Your task to perform on an android device: remove spam from my inbox in the gmail app Image 0: 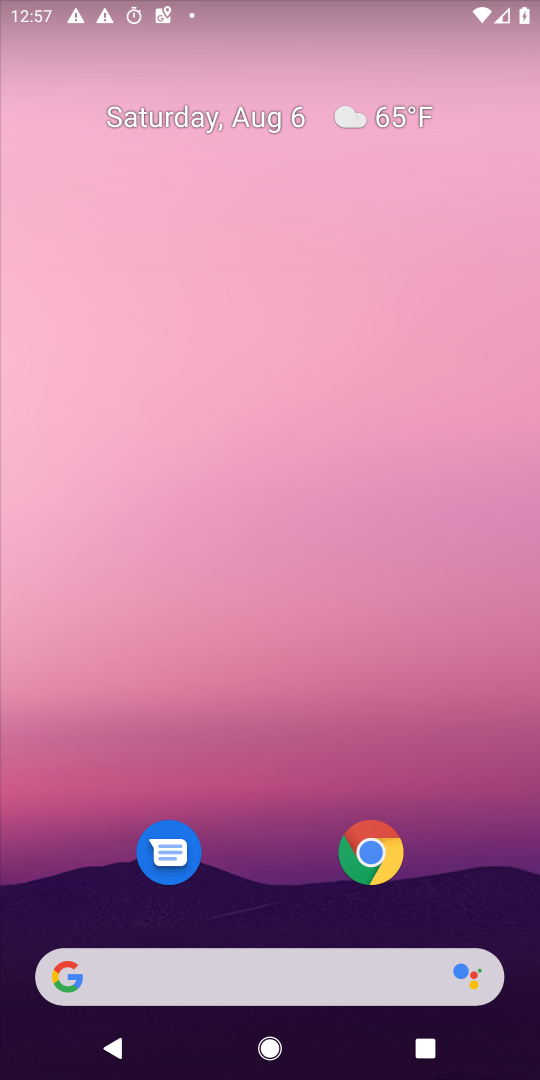
Step 0: press home button
Your task to perform on an android device: remove spam from my inbox in the gmail app Image 1: 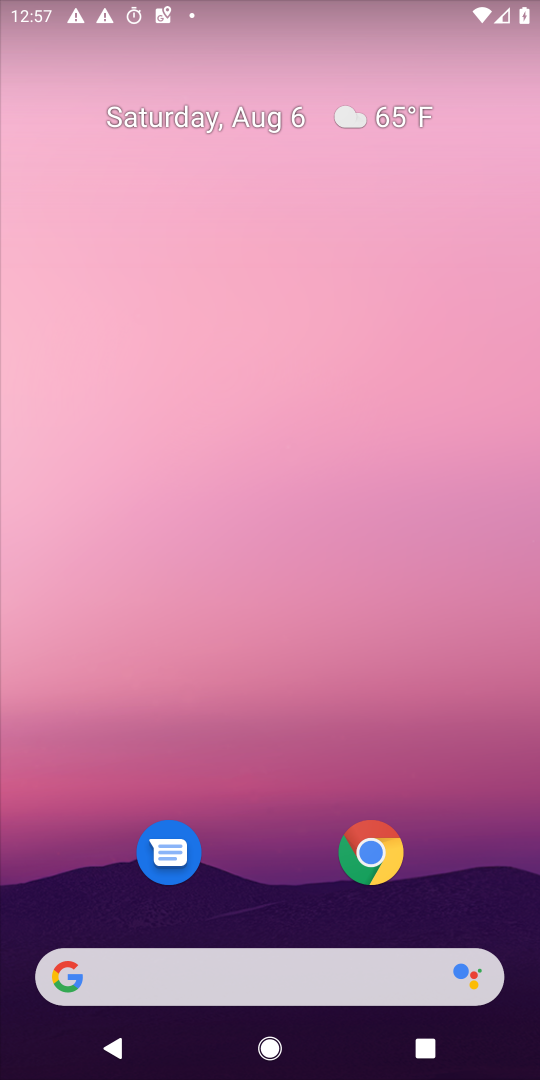
Step 1: drag from (363, 1016) to (327, 395)
Your task to perform on an android device: remove spam from my inbox in the gmail app Image 2: 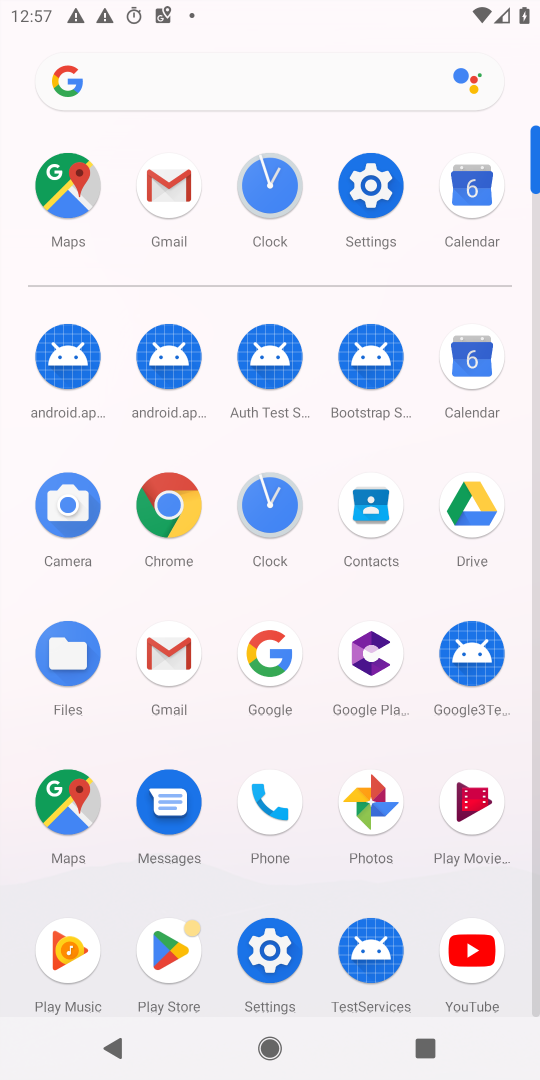
Step 2: click (140, 190)
Your task to perform on an android device: remove spam from my inbox in the gmail app Image 3: 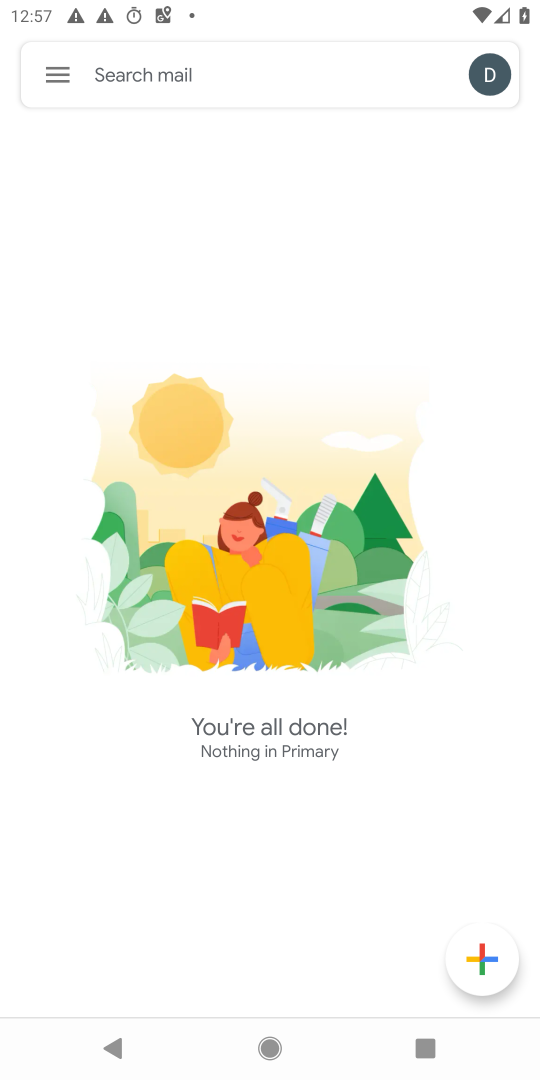
Step 3: click (55, 87)
Your task to perform on an android device: remove spam from my inbox in the gmail app Image 4: 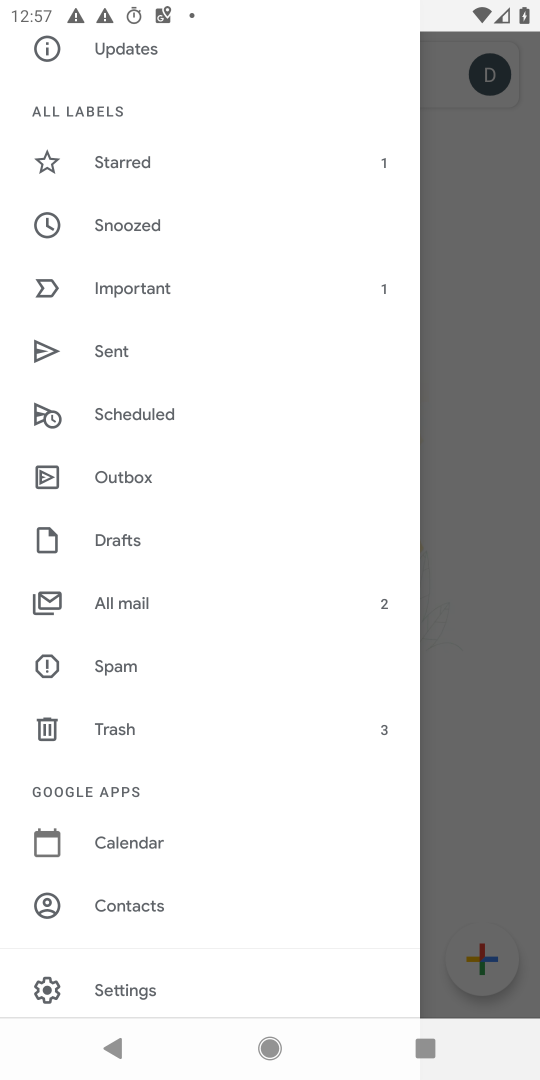
Step 4: click (130, 681)
Your task to perform on an android device: remove spam from my inbox in the gmail app Image 5: 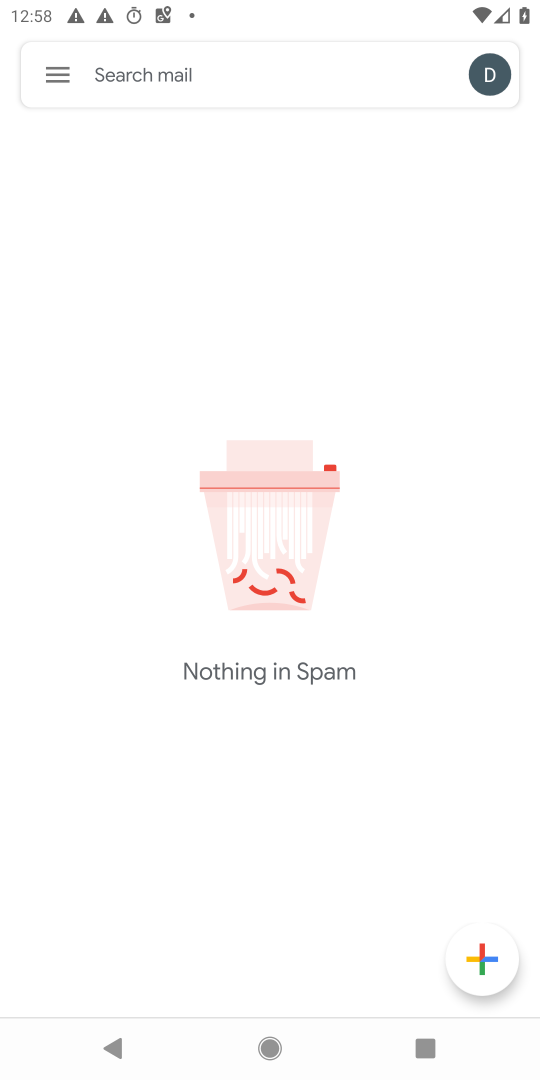
Step 5: click (54, 95)
Your task to perform on an android device: remove spam from my inbox in the gmail app Image 6: 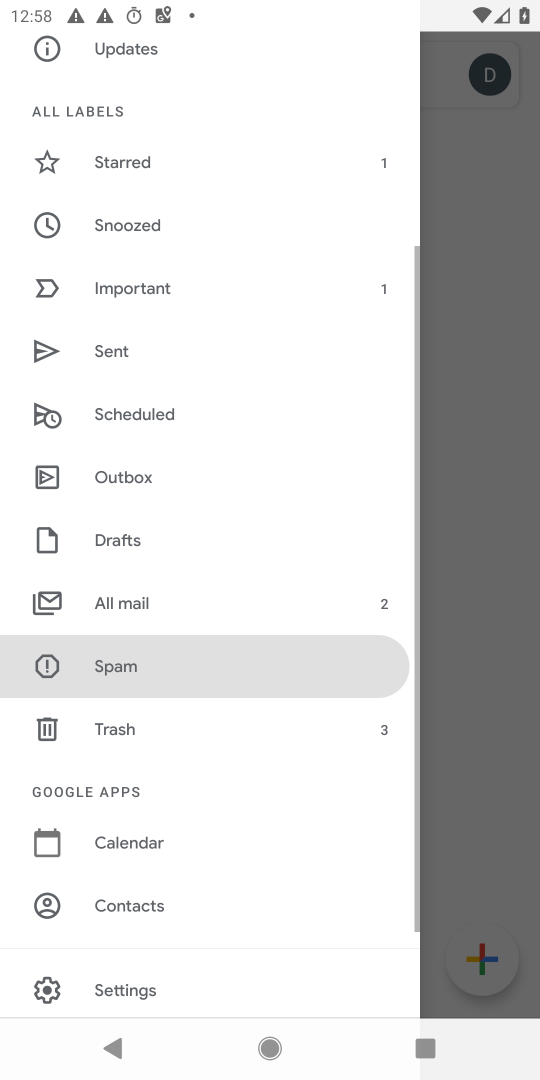
Step 6: click (154, 658)
Your task to perform on an android device: remove spam from my inbox in the gmail app Image 7: 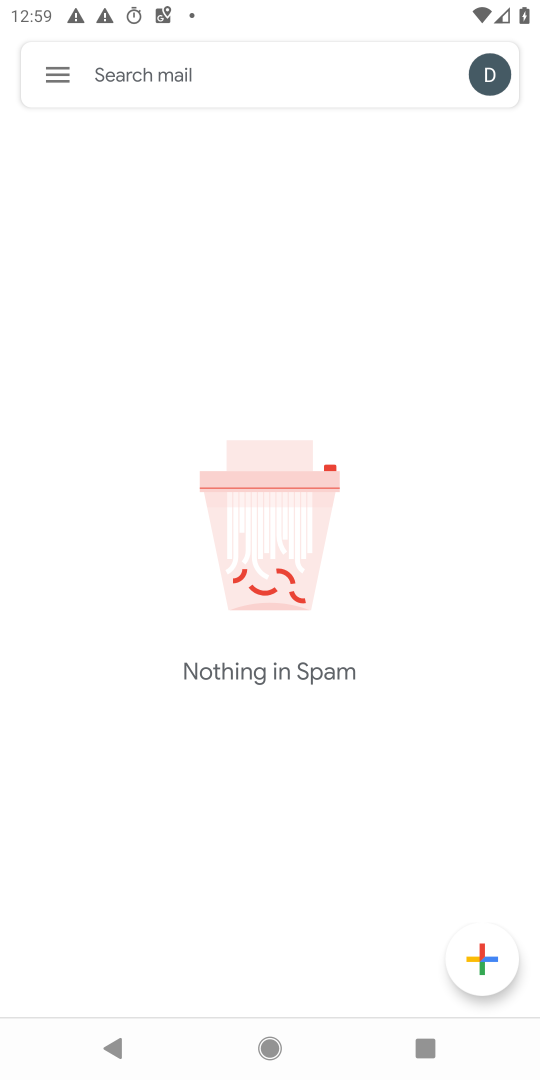
Step 7: task complete